Your task to perform on an android device: turn on wifi Image 0: 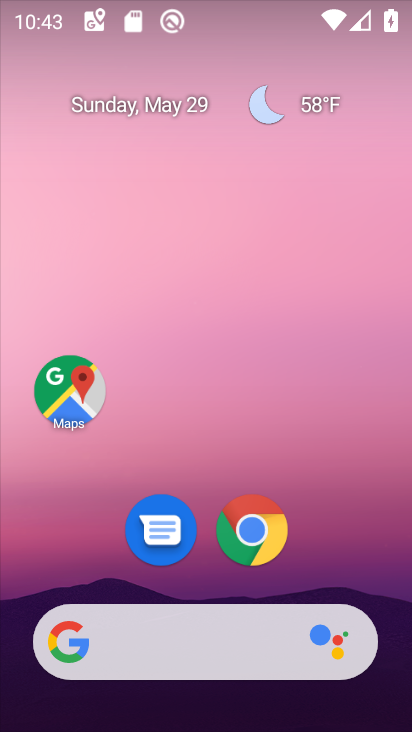
Step 0: drag from (188, 655) to (117, 0)
Your task to perform on an android device: turn on wifi Image 1: 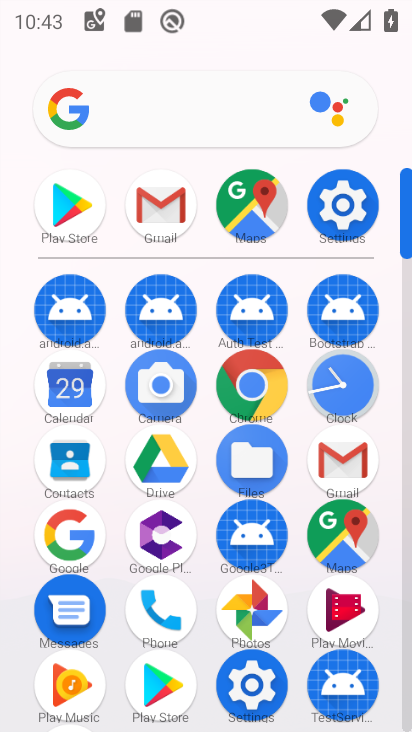
Step 1: click (346, 206)
Your task to perform on an android device: turn on wifi Image 2: 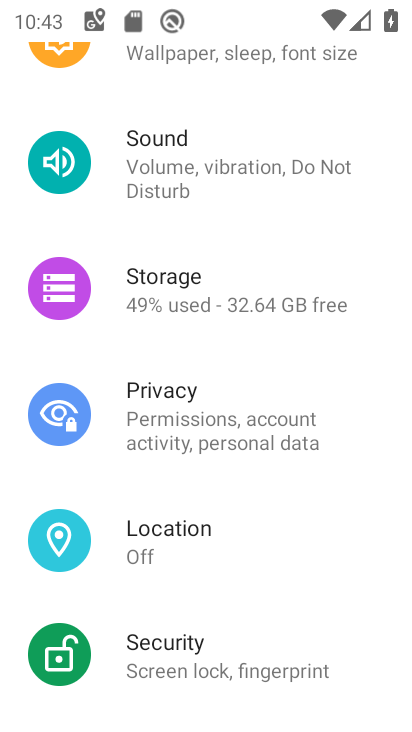
Step 2: drag from (159, 154) to (167, 679)
Your task to perform on an android device: turn on wifi Image 3: 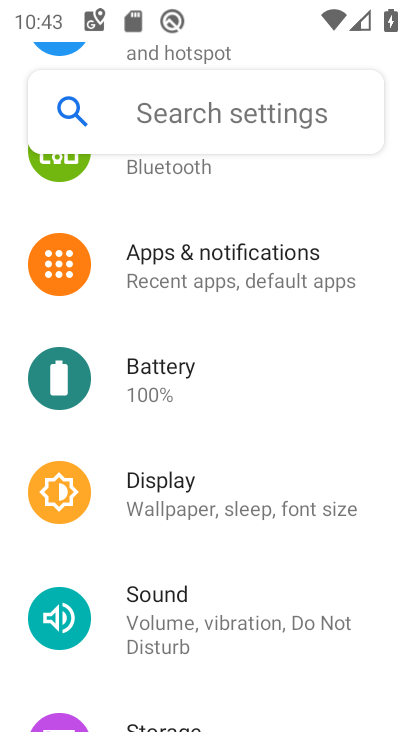
Step 3: drag from (175, 157) to (225, 575)
Your task to perform on an android device: turn on wifi Image 4: 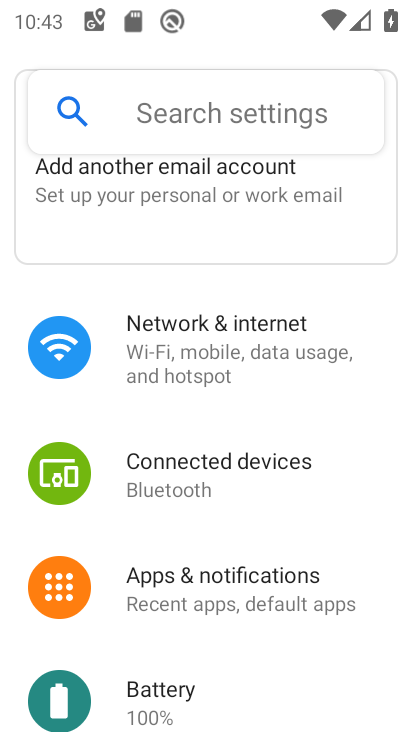
Step 4: click (223, 349)
Your task to perform on an android device: turn on wifi Image 5: 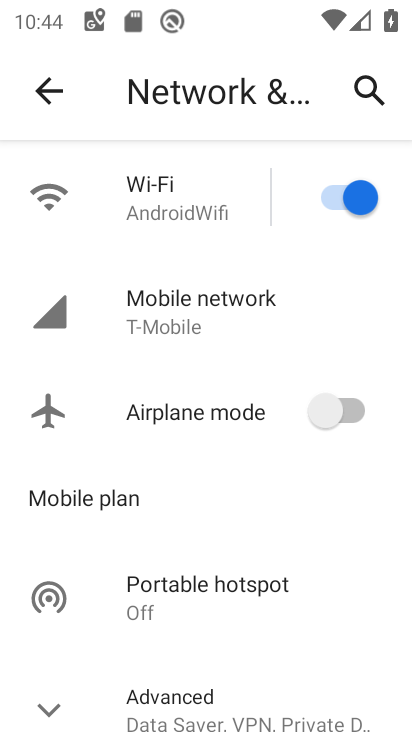
Step 5: task complete